Your task to perform on an android device: Go to Yahoo.com Image 0: 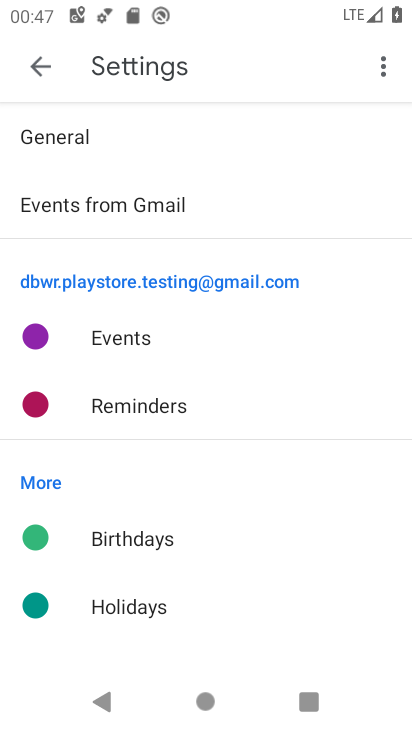
Step 0: press home button
Your task to perform on an android device: Go to Yahoo.com Image 1: 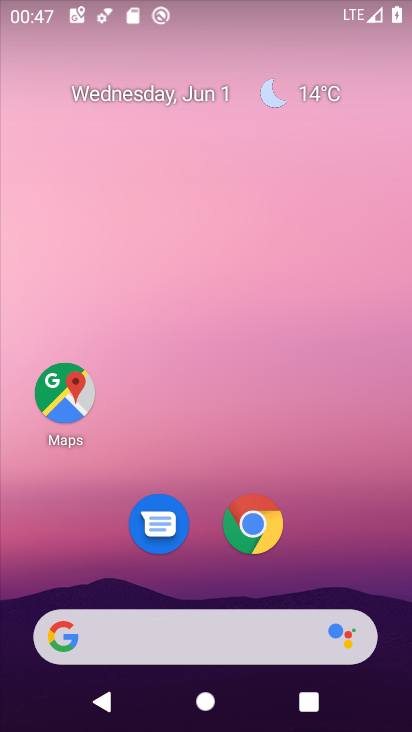
Step 1: click (242, 650)
Your task to perform on an android device: Go to Yahoo.com Image 2: 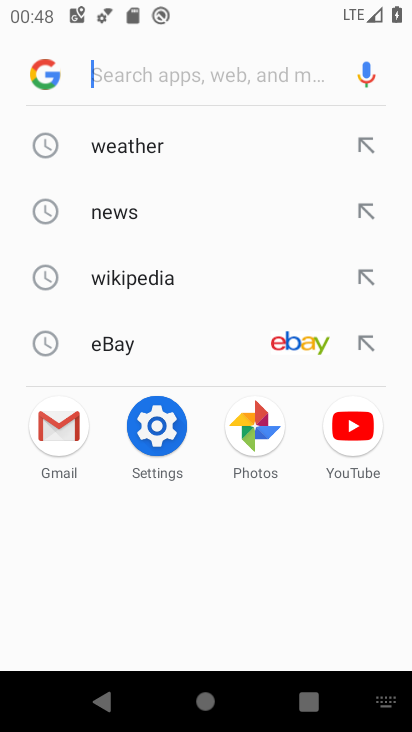
Step 2: type "yahoo.com"
Your task to perform on an android device: Go to Yahoo.com Image 3: 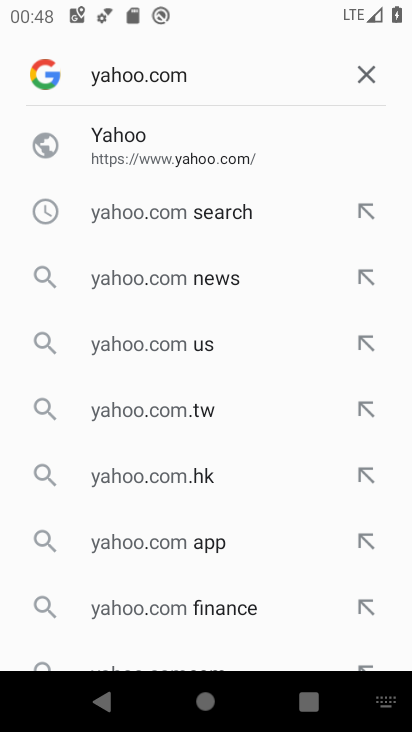
Step 3: click (117, 140)
Your task to perform on an android device: Go to Yahoo.com Image 4: 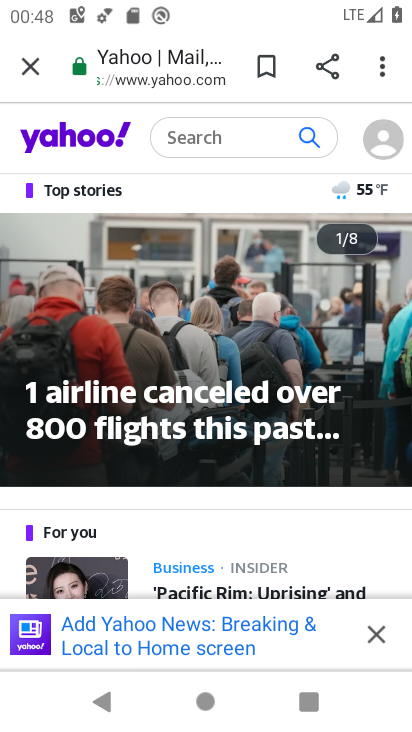
Step 4: task complete